Your task to perform on an android device: Open Amazon Image 0: 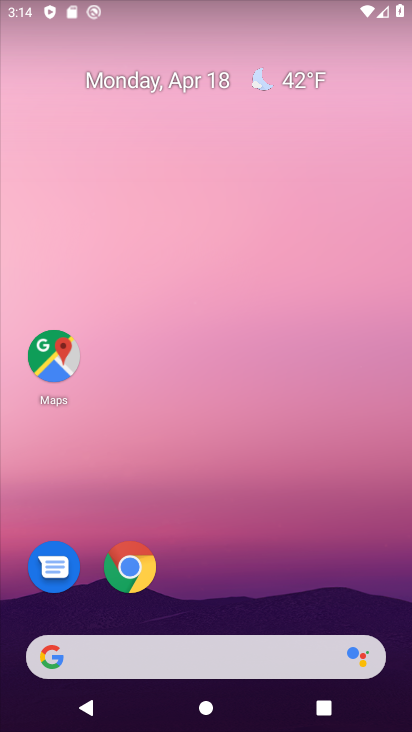
Step 0: click (133, 561)
Your task to perform on an android device: Open Amazon Image 1: 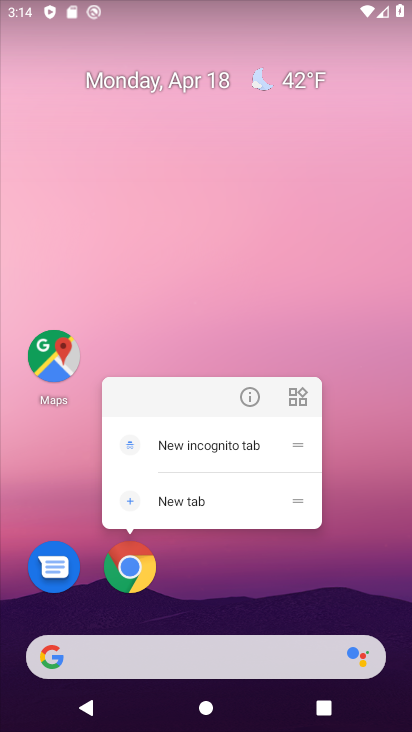
Step 1: click (148, 573)
Your task to perform on an android device: Open Amazon Image 2: 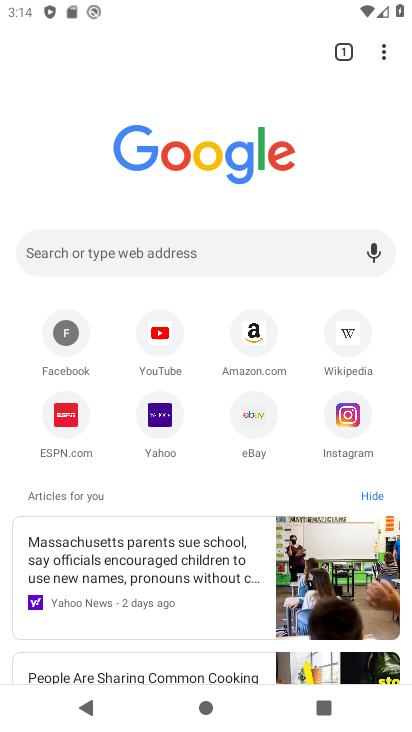
Step 2: click (244, 346)
Your task to perform on an android device: Open Amazon Image 3: 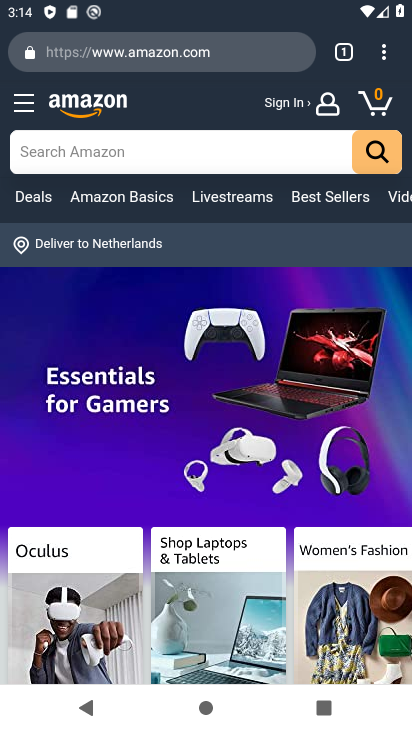
Step 3: task complete